Your task to perform on an android device: Open the Play Movies app and select the watchlist tab. Image 0: 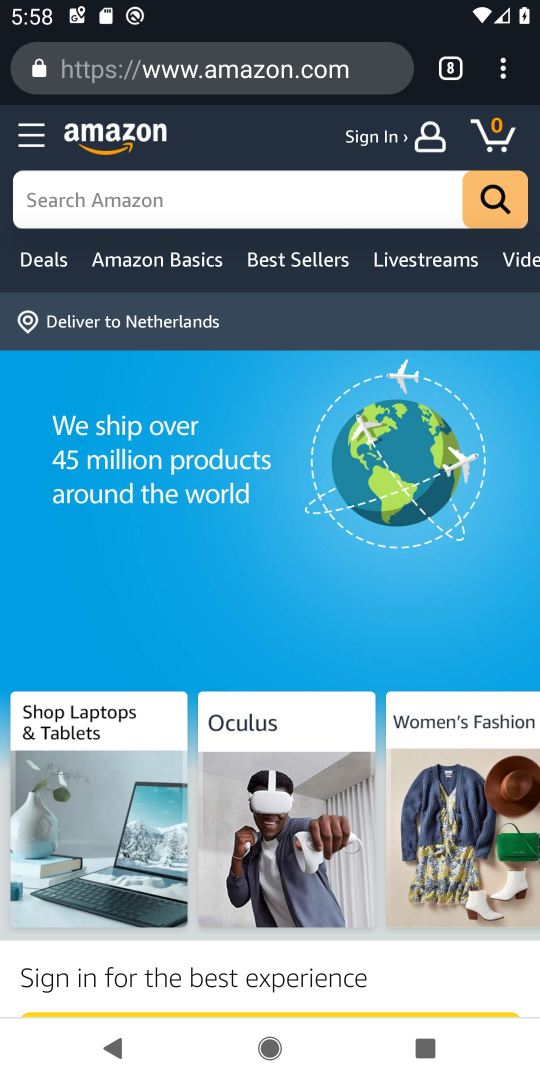
Step 0: press home button
Your task to perform on an android device: Open the Play Movies app and select the watchlist tab. Image 1: 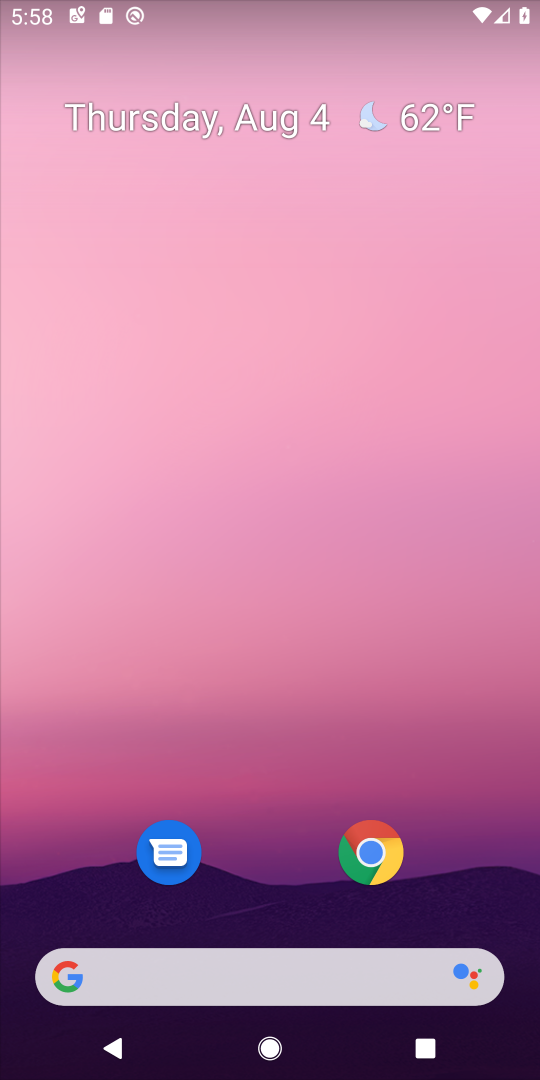
Step 1: drag from (275, 771) to (251, 263)
Your task to perform on an android device: Open the Play Movies app and select the watchlist tab. Image 2: 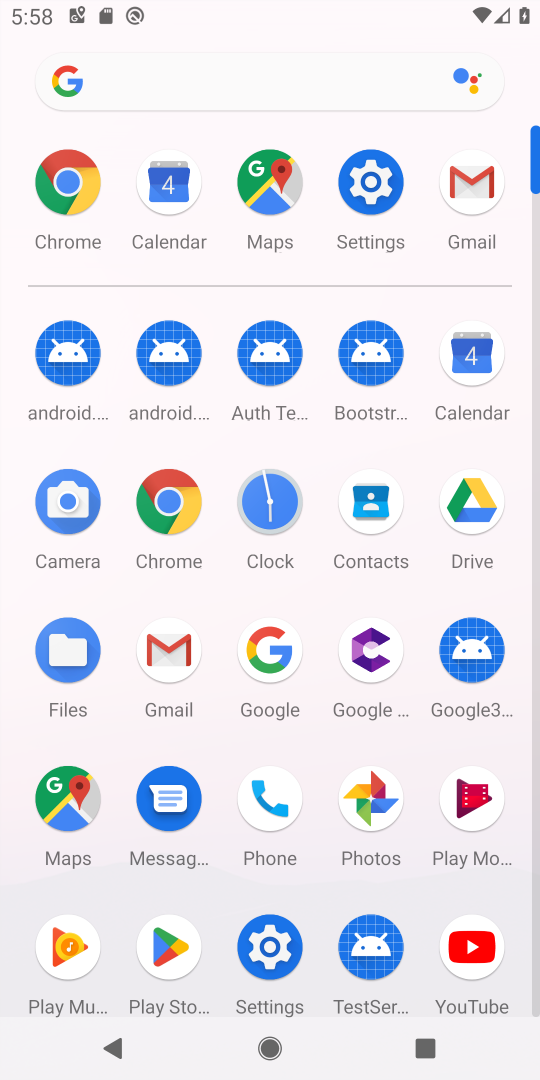
Step 2: click (355, 172)
Your task to perform on an android device: Open the Play Movies app and select the watchlist tab. Image 3: 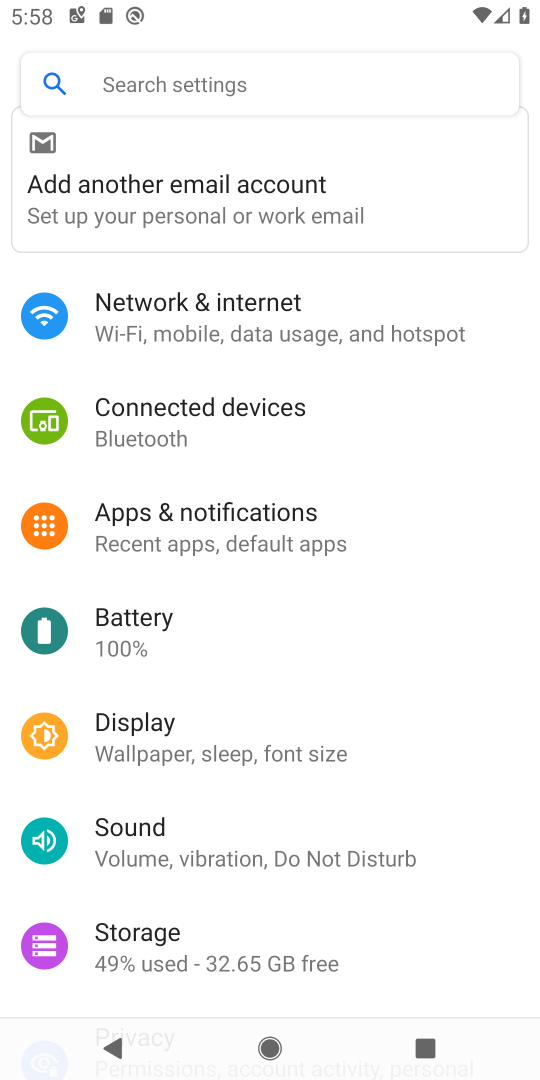
Step 3: click (231, 436)
Your task to perform on an android device: Open the Play Movies app and select the watchlist tab. Image 4: 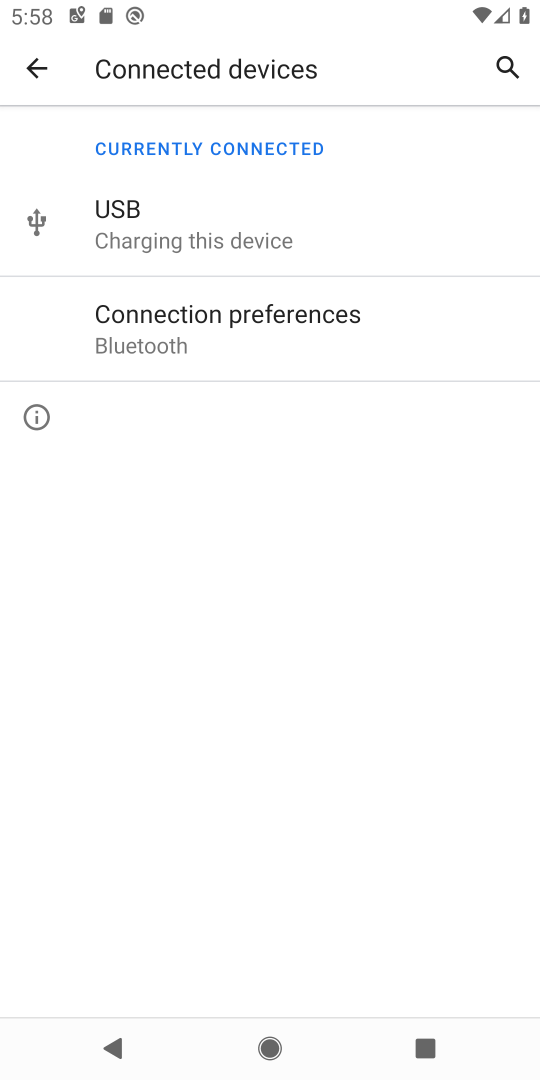
Step 4: click (41, 63)
Your task to perform on an android device: Open the Play Movies app and select the watchlist tab. Image 5: 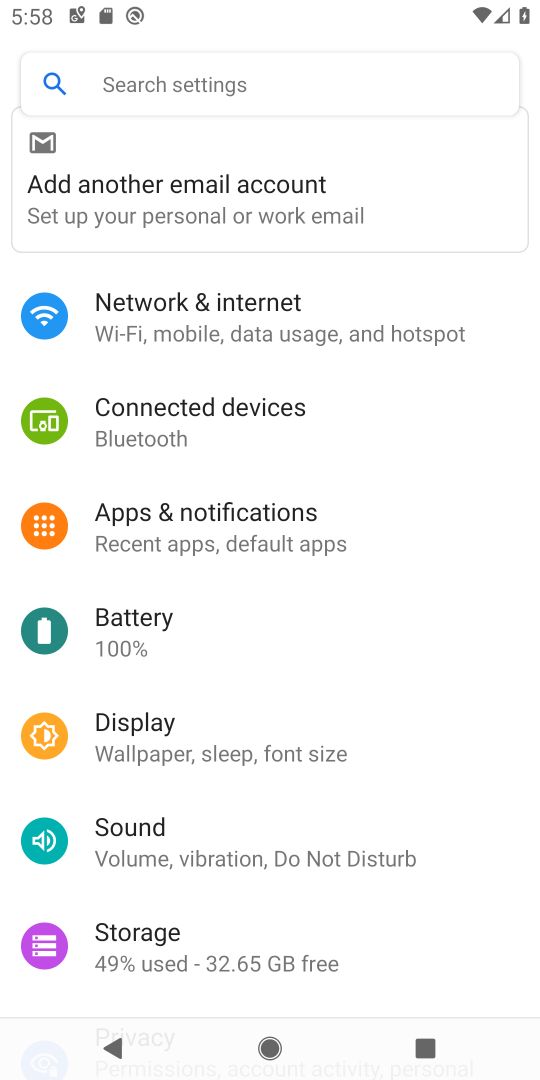
Step 5: task complete